Your task to perform on an android device: Go to wifi settings Image 0: 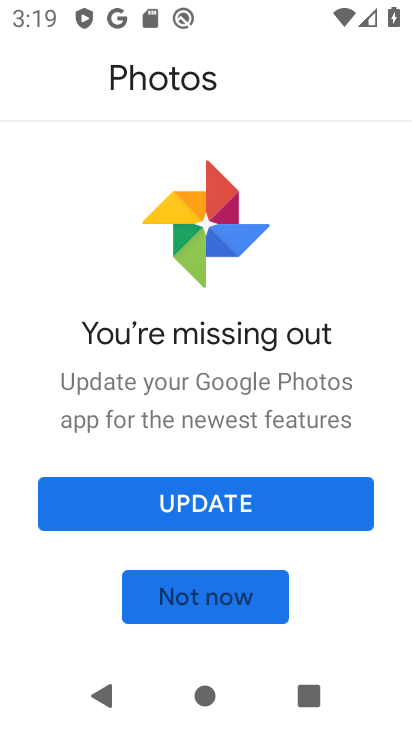
Step 0: press back button
Your task to perform on an android device: Go to wifi settings Image 1: 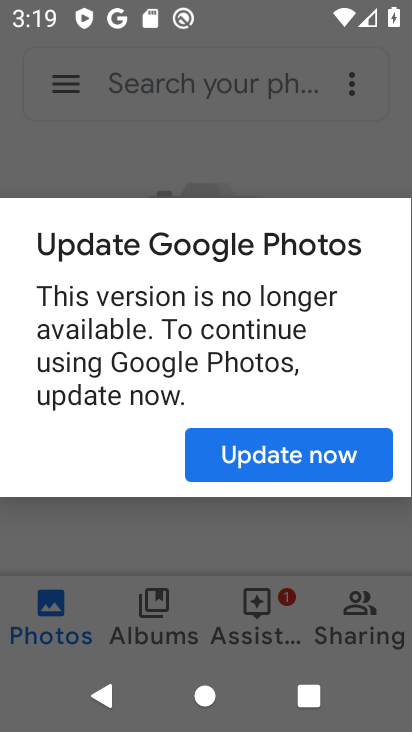
Step 1: press back button
Your task to perform on an android device: Go to wifi settings Image 2: 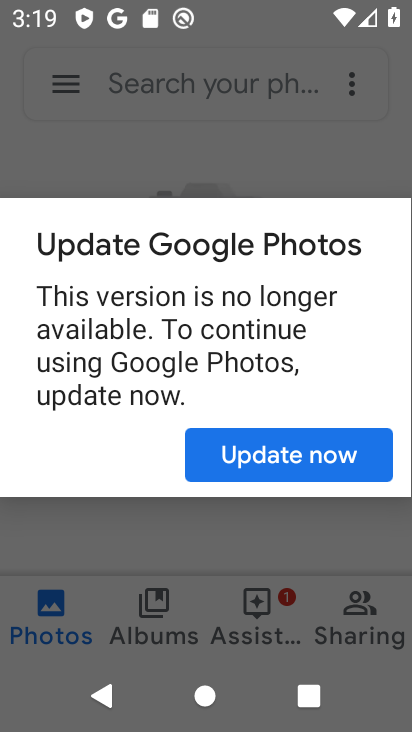
Step 2: press home button
Your task to perform on an android device: Go to wifi settings Image 3: 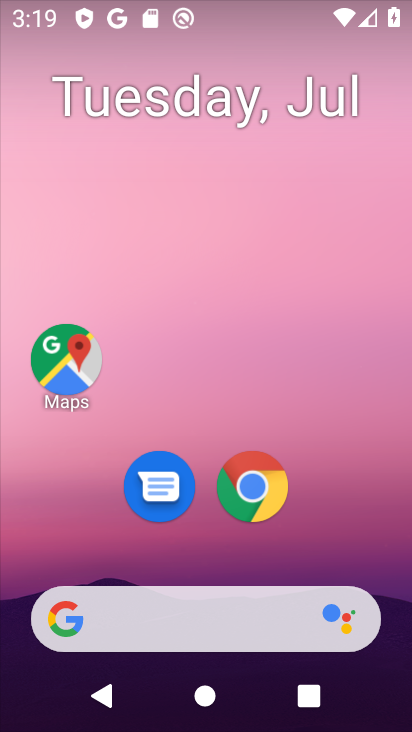
Step 3: drag from (149, 17) to (137, 519)
Your task to perform on an android device: Go to wifi settings Image 4: 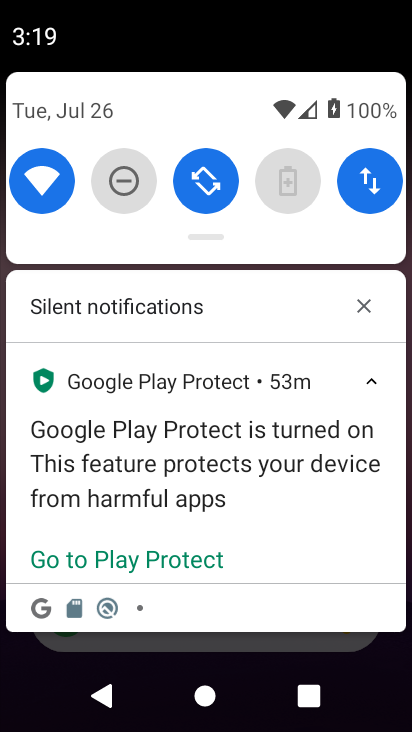
Step 4: click (33, 180)
Your task to perform on an android device: Go to wifi settings Image 5: 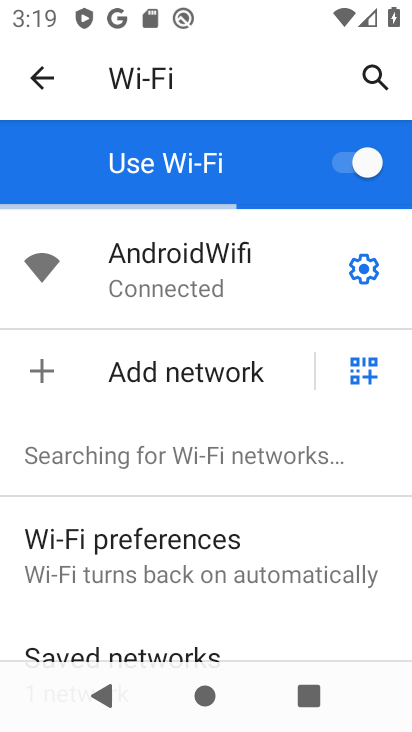
Step 5: task complete